Your task to perform on an android device: Go to location settings Image 0: 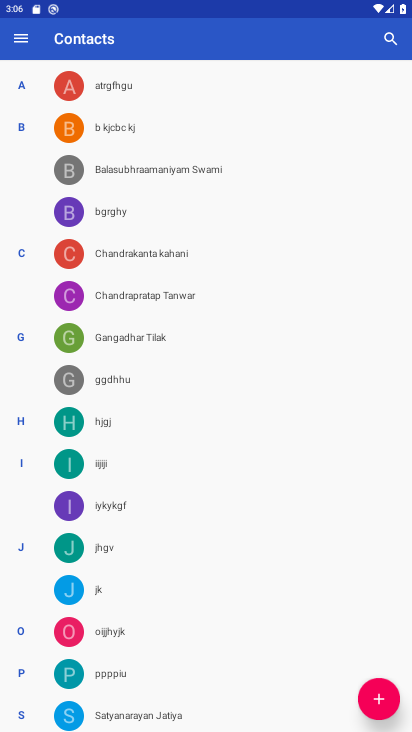
Step 0: press home button
Your task to perform on an android device: Go to location settings Image 1: 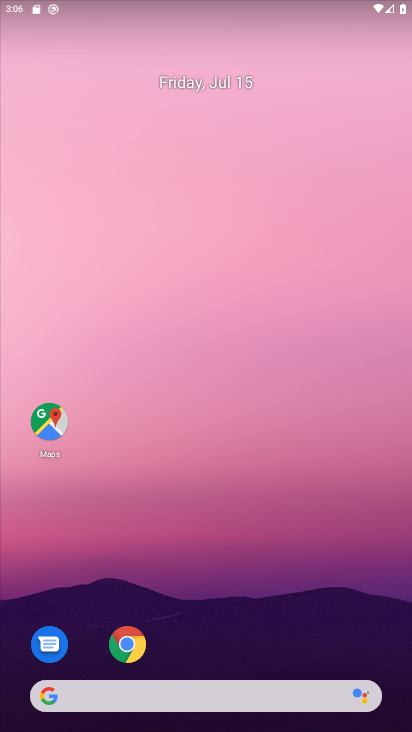
Step 1: drag from (200, 634) to (244, 181)
Your task to perform on an android device: Go to location settings Image 2: 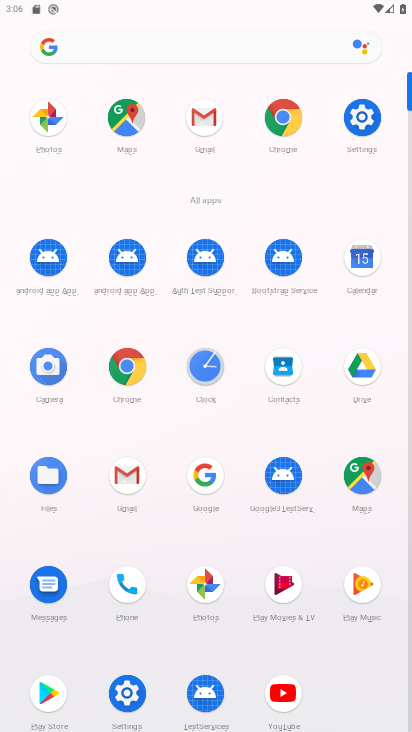
Step 2: drag from (189, 619) to (192, 243)
Your task to perform on an android device: Go to location settings Image 3: 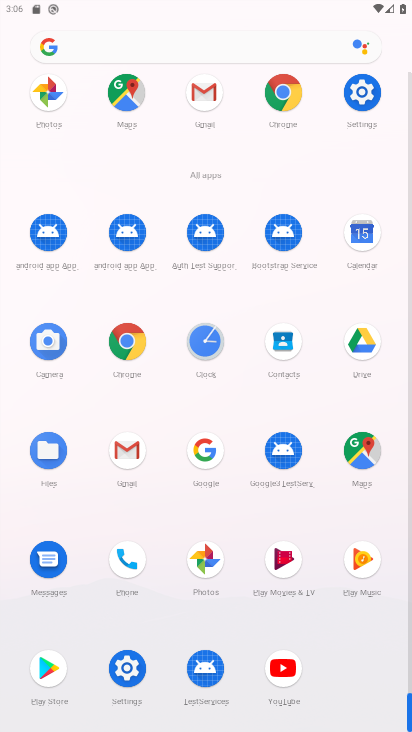
Step 3: click (117, 687)
Your task to perform on an android device: Go to location settings Image 4: 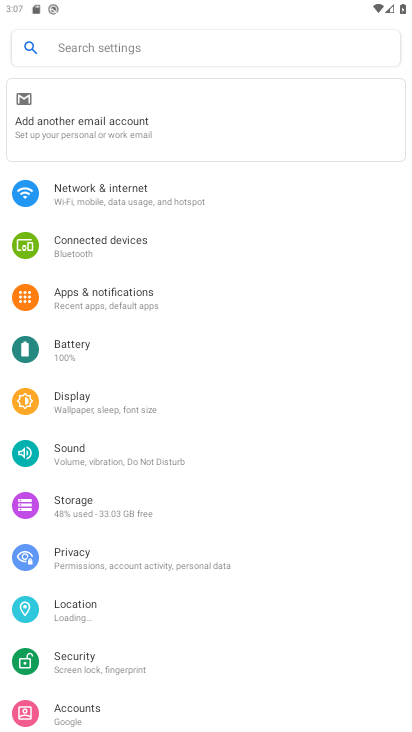
Step 4: click (127, 684)
Your task to perform on an android device: Go to location settings Image 5: 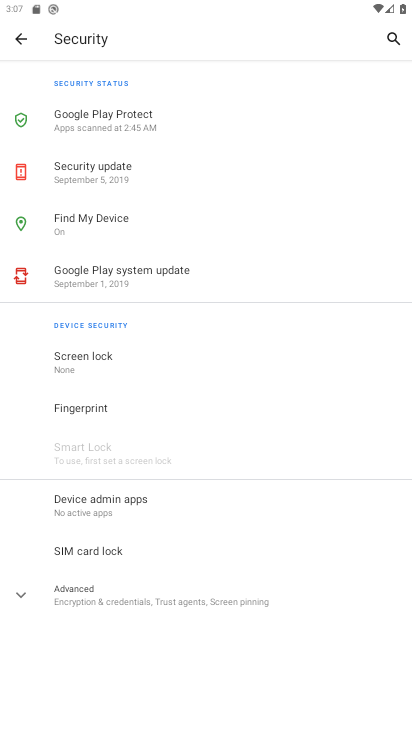
Step 5: click (64, 610)
Your task to perform on an android device: Go to location settings Image 6: 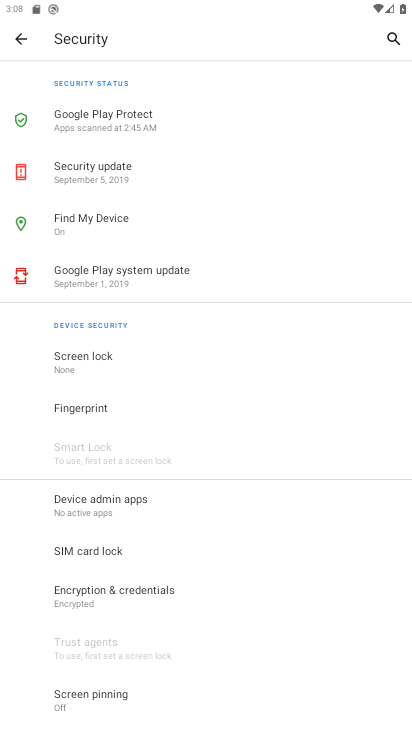
Step 6: task complete